Your task to perform on an android device: add a contact in the contacts app Image 0: 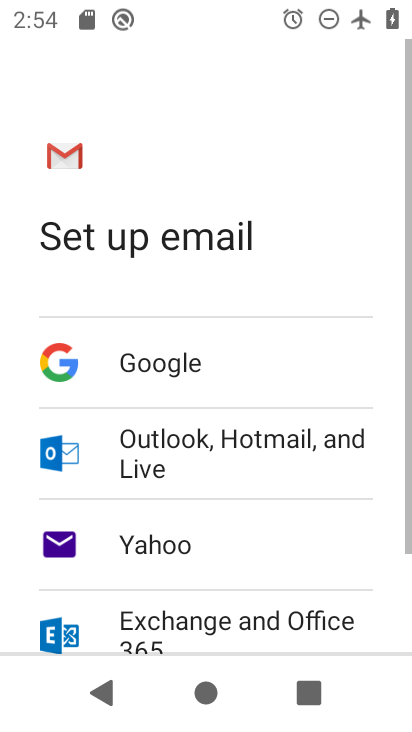
Step 0: task complete